Your task to perform on an android device: turn off wifi Image 0: 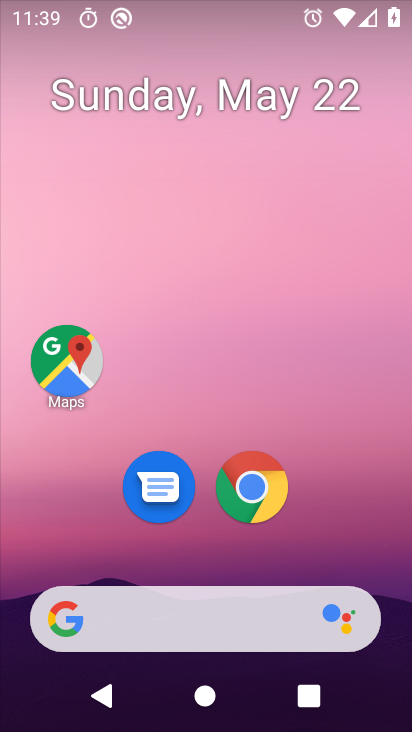
Step 0: drag from (388, 503) to (376, 115)
Your task to perform on an android device: turn off wifi Image 1: 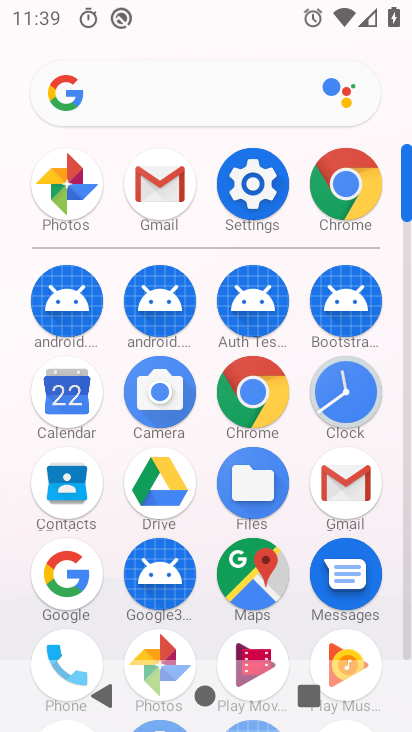
Step 1: click (278, 188)
Your task to perform on an android device: turn off wifi Image 2: 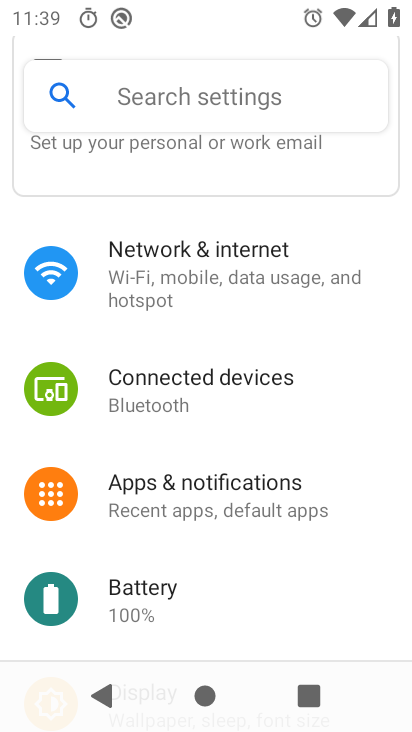
Step 2: click (215, 267)
Your task to perform on an android device: turn off wifi Image 3: 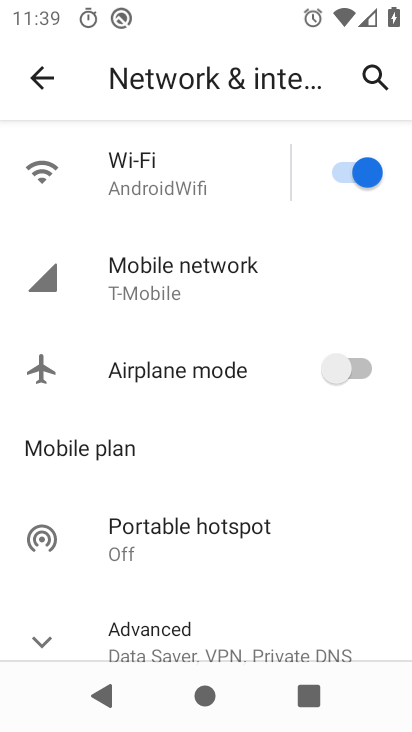
Step 3: click (166, 182)
Your task to perform on an android device: turn off wifi Image 4: 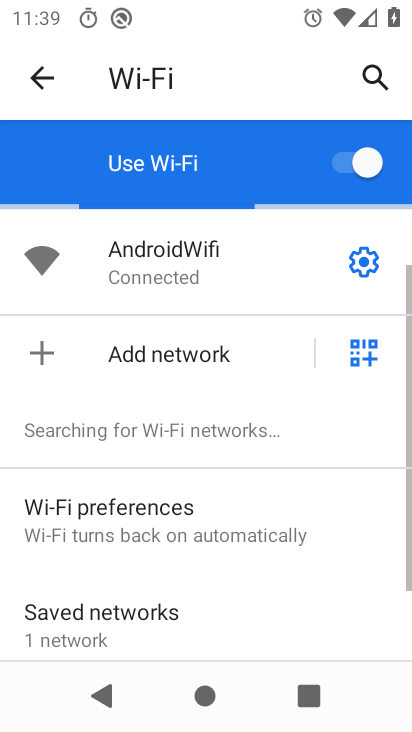
Step 4: click (373, 262)
Your task to perform on an android device: turn off wifi Image 5: 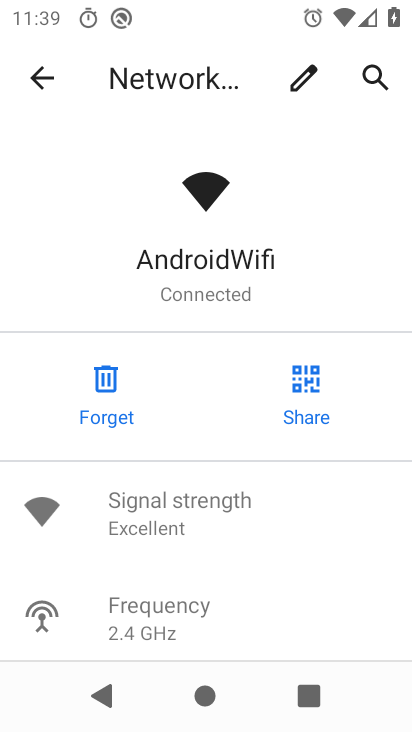
Step 5: task complete